Your task to perform on an android device: turn on improve location accuracy Image 0: 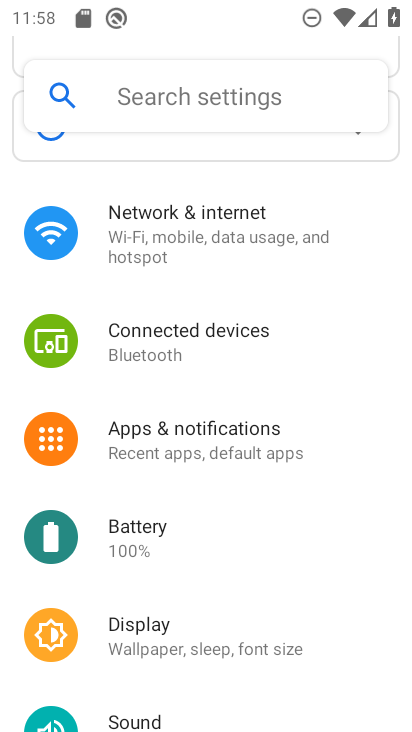
Step 0: press home button
Your task to perform on an android device: turn on improve location accuracy Image 1: 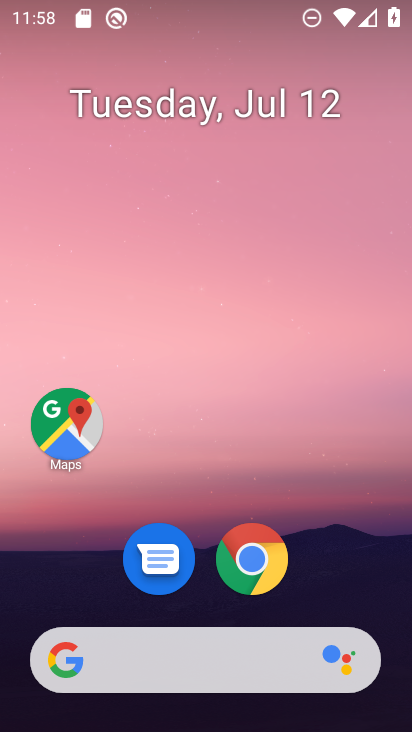
Step 1: drag from (255, 625) to (233, 184)
Your task to perform on an android device: turn on improve location accuracy Image 2: 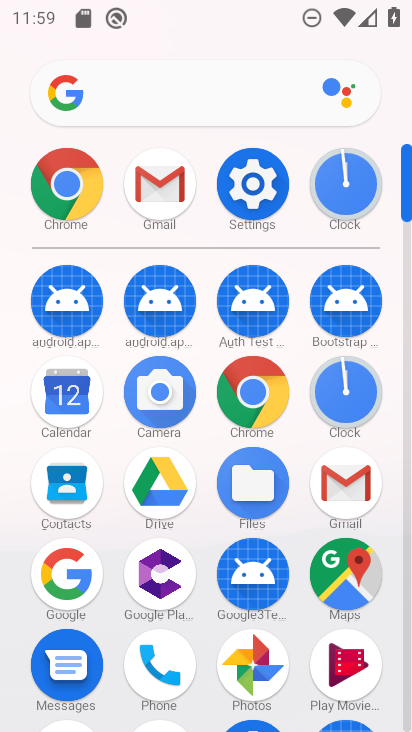
Step 2: click (252, 214)
Your task to perform on an android device: turn on improve location accuracy Image 3: 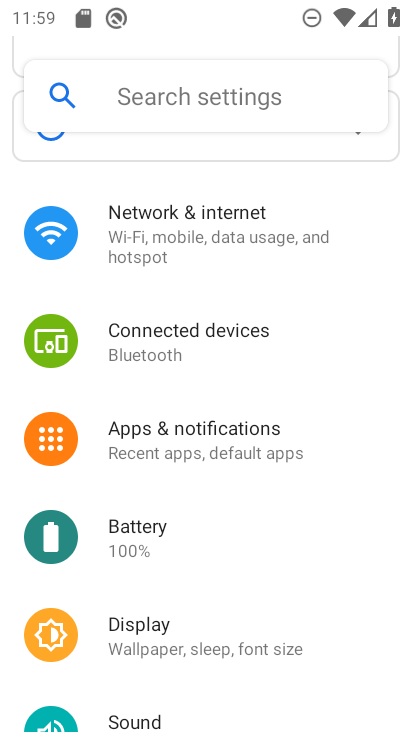
Step 3: drag from (192, 571) to (116, 276)
Your task to perform on an android device: turn on improve location accuracy Image 4: 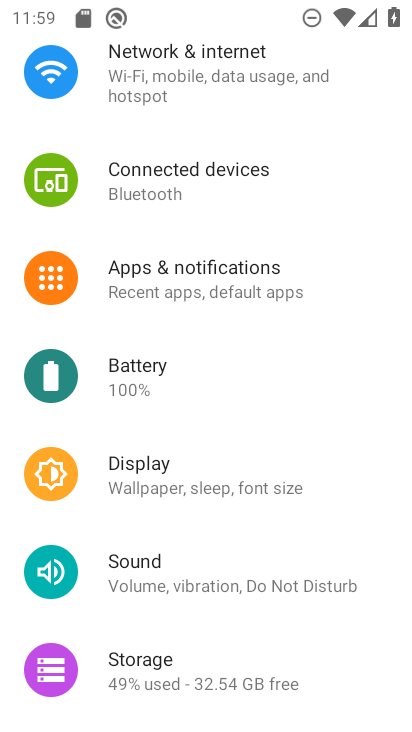
Step 4: drag from (161, 563) to (147, 332)
Your task to perform on an android device: turn on improve location accuracy Image 5: 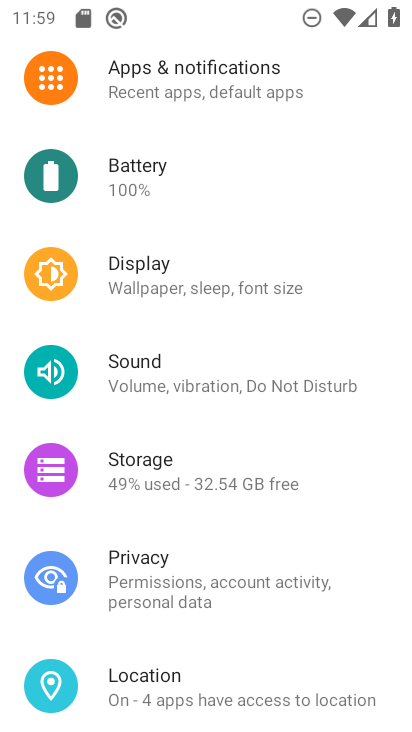
Step 5: drag from (150, 622) to (172, 421)
Your task to perform on an android device: turn on improve location accuracy Image 6: 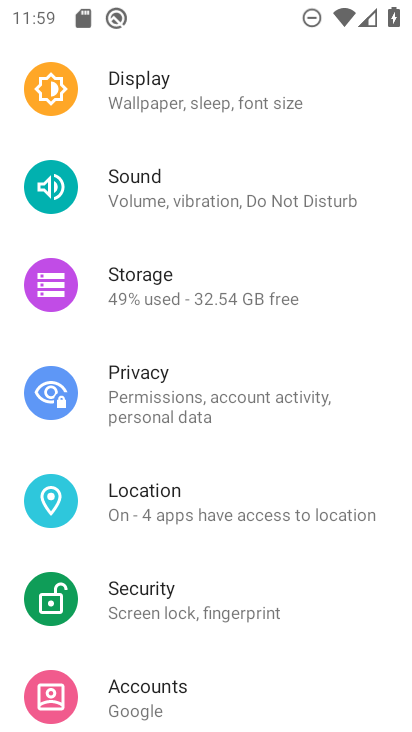
Step 6: click (209, 513)
Your task to perform on an android device: turn on improve location accuracy Image 7: 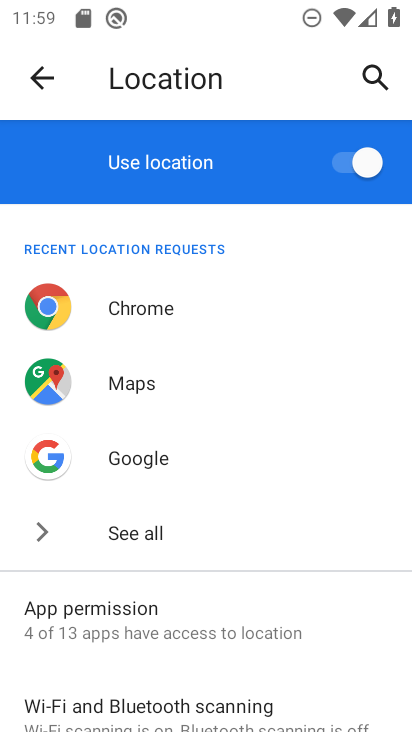
Step 7: drag from (177, 592) to (155, 320)
Your task to perform on an android device: turn on improve location accuracy Image 8: 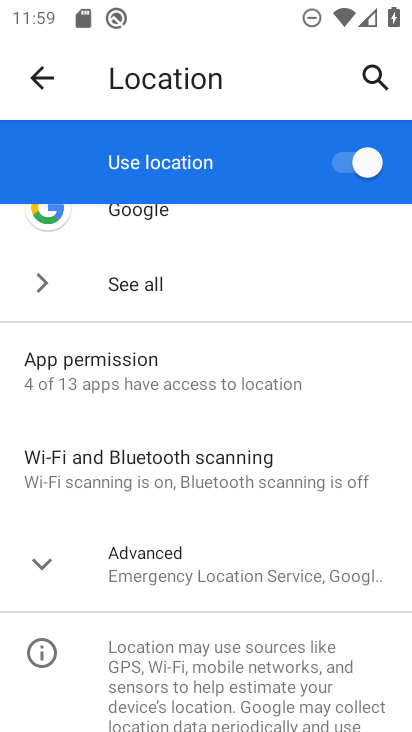
Step 8: click (137, 586)
Your task to perform on an android device: turn on improve location accuracy Image 9: 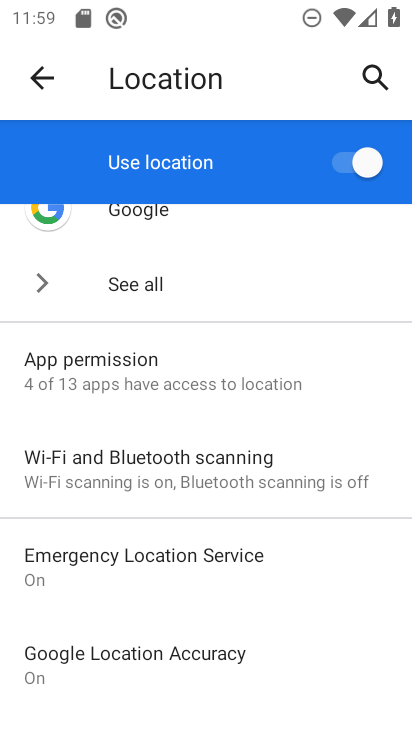
Step 9: drag from (171, 645) to (200, 477)
Your task to perform on an android device: turn on improve location accuracy Image 10: 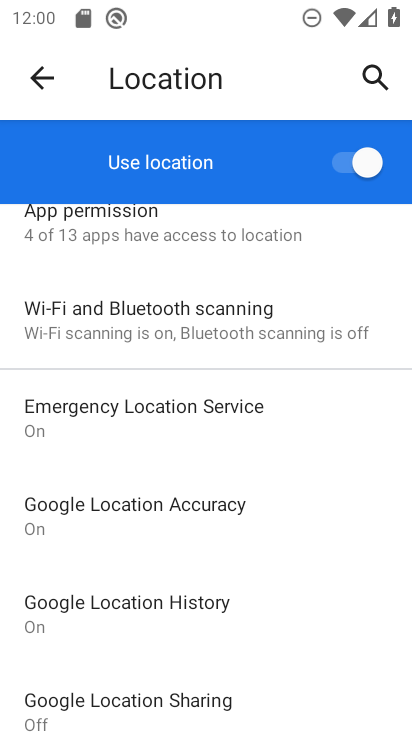
Step 10: click (207, 523)
Your task to perform on an android device: turn on improve location accuracy Image 11: 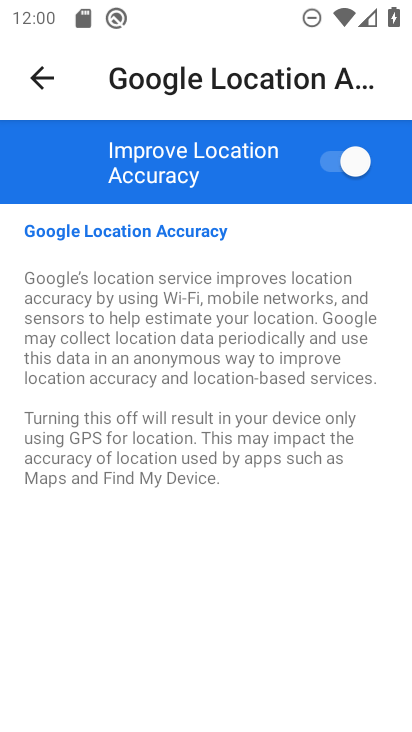
Step 11: task complete